Your task to perform on an android device: create a new album in the google photos Image 0: 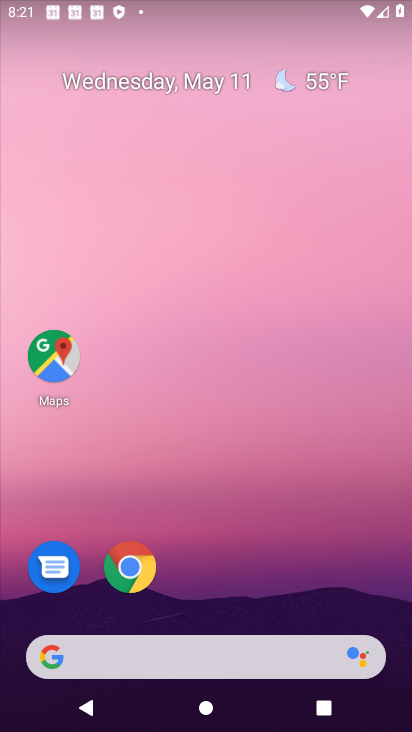
Step 0: drag from (300, 619) to (291, 57)
Your task to perform on an android device: create a new album in the google photos Image 1: 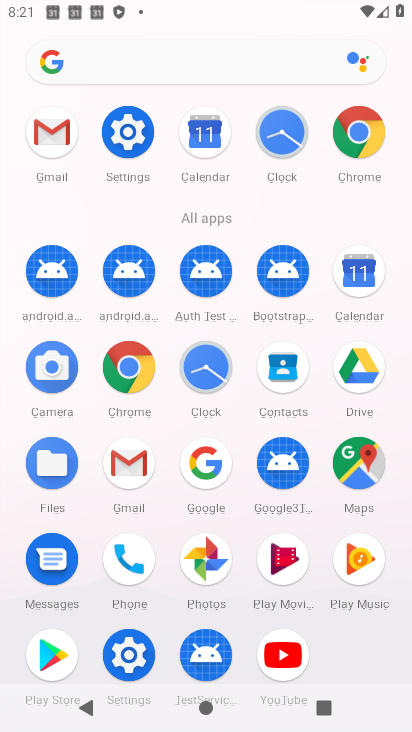
Step 1: click (227, 570)
Your task to perform on an android device: create a new album in the google photos Image 2: 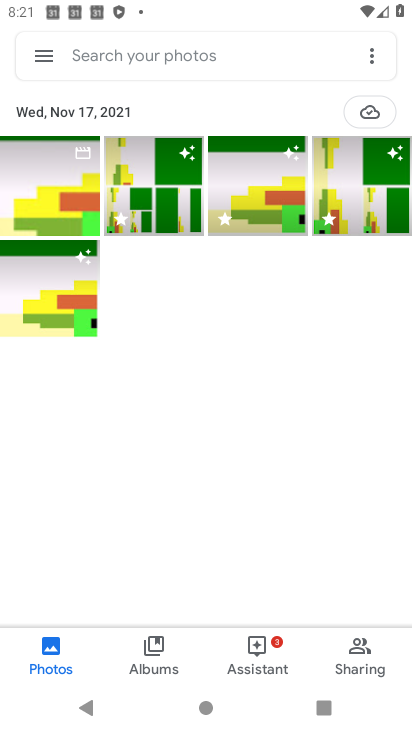
Step 2: click (162, 642)
Your task to perform on an android device: create a new album in the google photos Image 3: 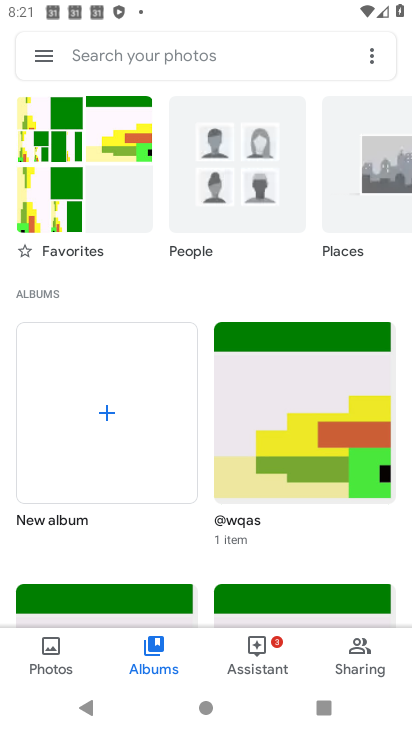
Step 3: click (111, 408)
Your task to perform on an android device: create a new album in the google photos Image 4: 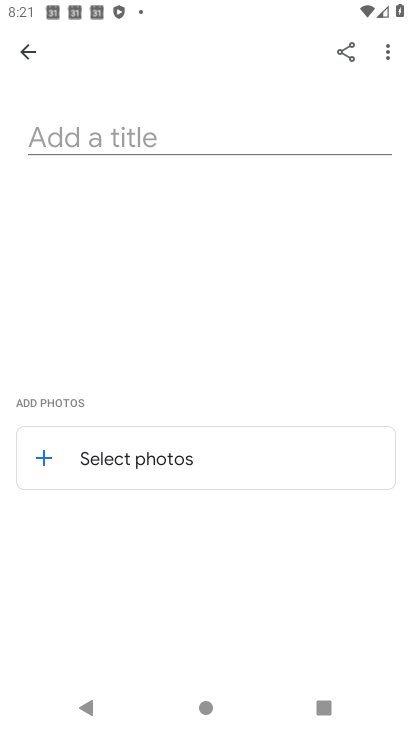
Step 4: click (218, 133)
Your task to perform on an android device: create a new album in the google photos Image 5: 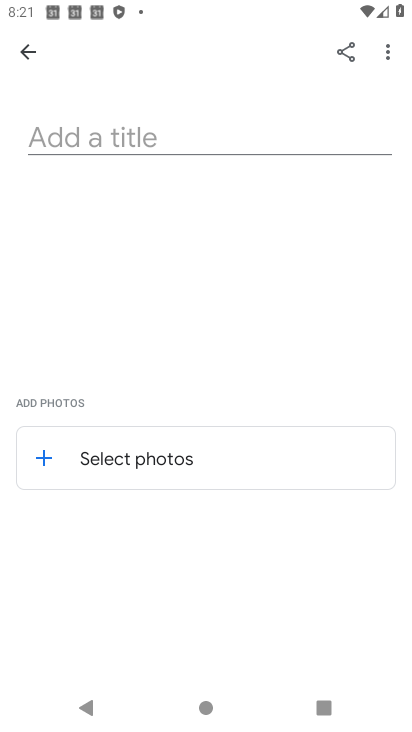
Step 5: click (218, 133)
Your task to perform on an android device: create a new album in the google photos Image 6: 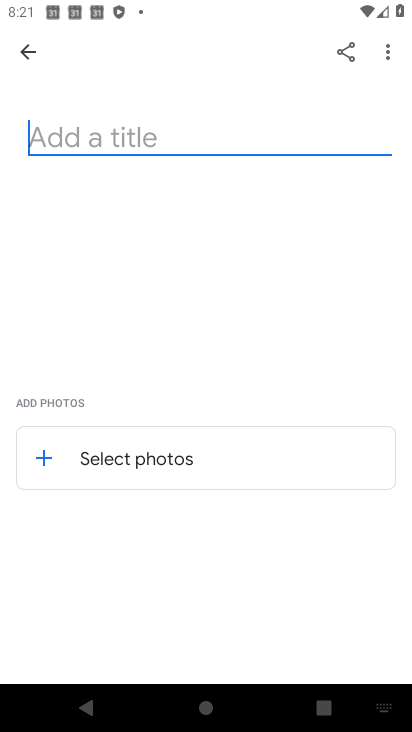
Step 6: type "collection"
Your task to perform on an android device: create a new album in the google photos Image 7: 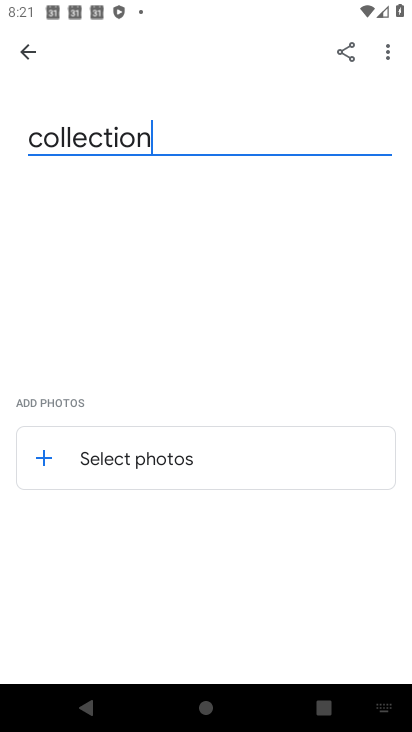
Step 7: click (166, 469)
Your task to perform on an android device: create a new album in the google photos Image 8: 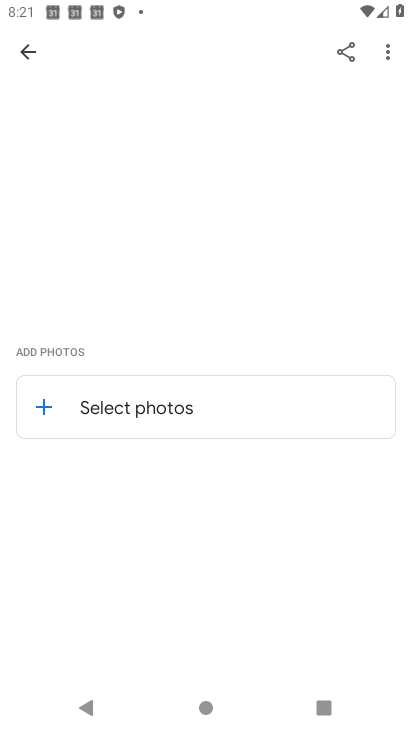
Step 8: click (39, 408)
Your task to perform on an android device: create a new album in the google photos Image 9: 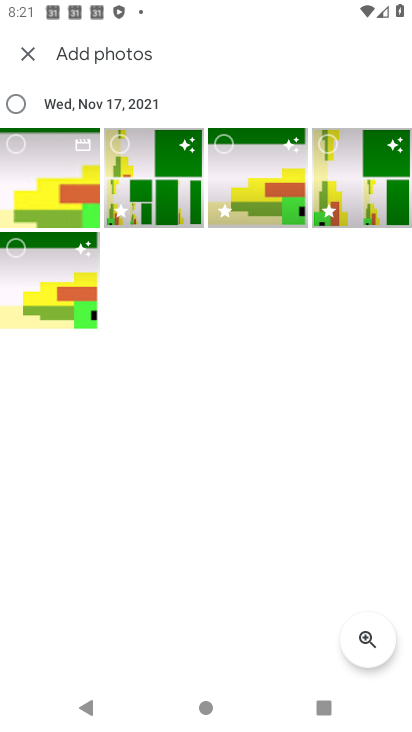
Step 9: click (52, 192)
Your task to perform on an android device: create a new album in the google photos Image 10: 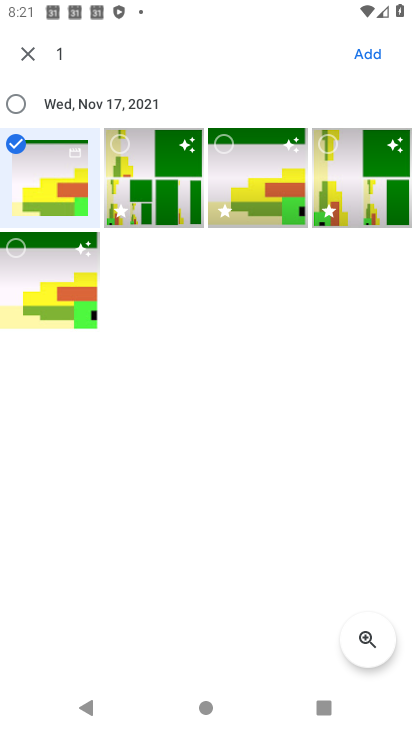
Step 10: click (148, 179)
Your task to perform on an android device: create a new album in the google photos Image 11: 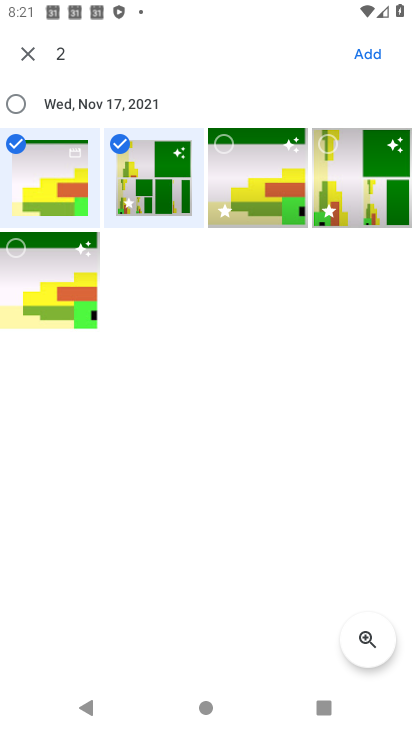
Step 11: click (372, 55)
Your task to perform on an android device: create a new album in the google photos Image 12: 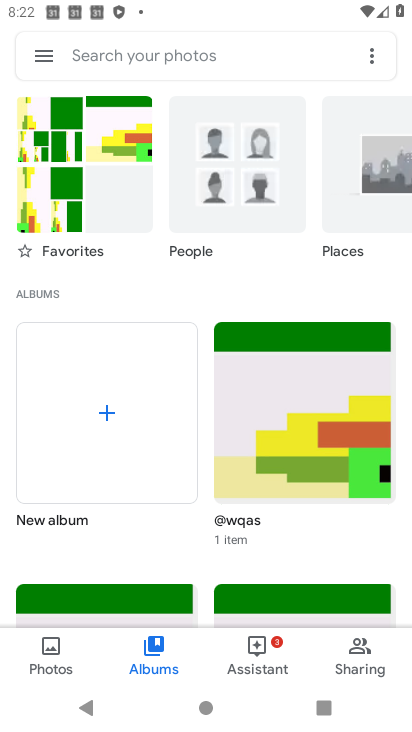
Step 12: task complete